Your task to perform on an android device: Empty the shopping cart on walmart. Add "usb-c" to the cart on walmart Image 0: 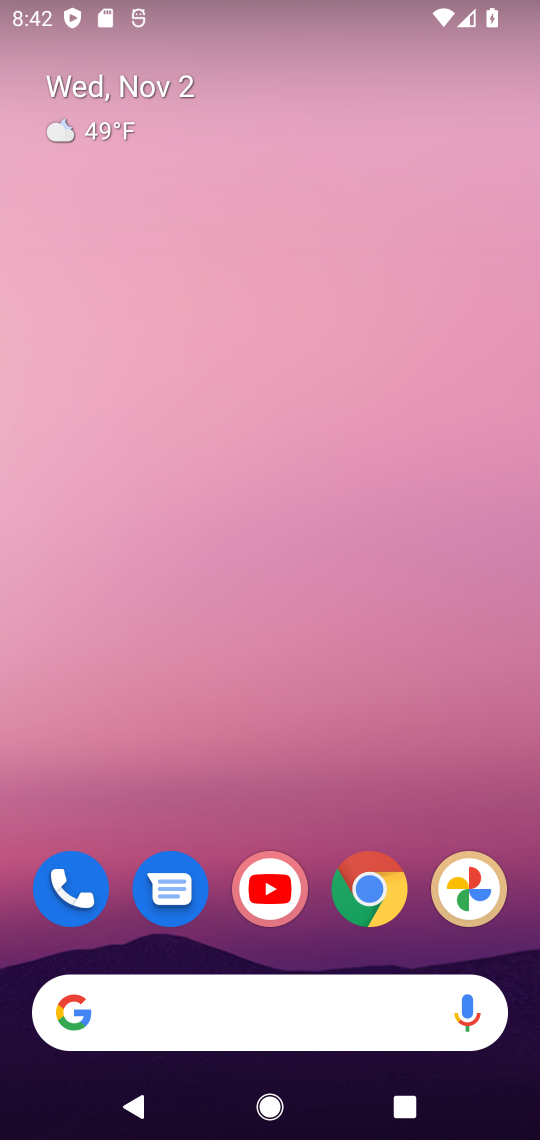
Step 0: press home button
Your task to perform on an android device: Empty the shopping cart on walmart. Add "usb-c" to the cart on walmart Image 1: 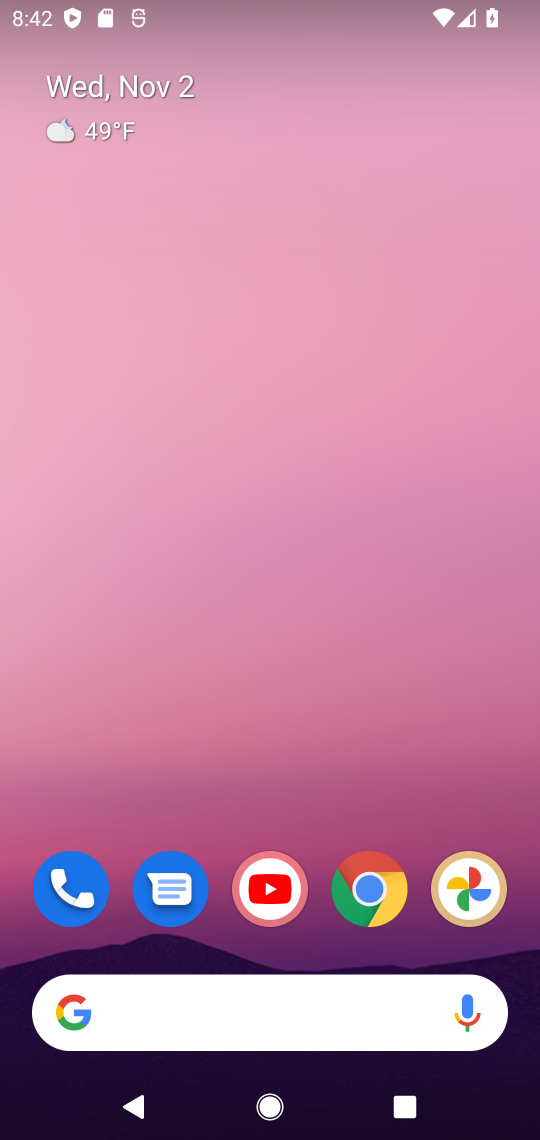
Step 1: drag from (317, 818) to (161, 0)
Your task to perform on an android device: Empty the shopping cart on walmart. Add "usb-c" to the cart on walmart Image 2: 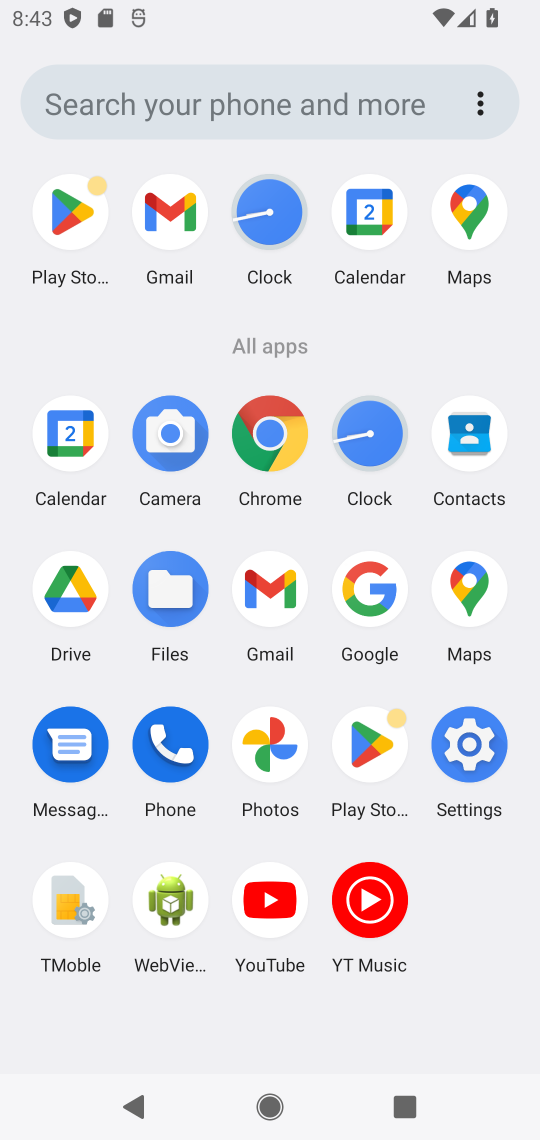
Step 2: click (269, 428)
Your task to perform on an android device: Empty the shopping cart on walmart. Add "usb-c" to the cart on walmart Image 3: 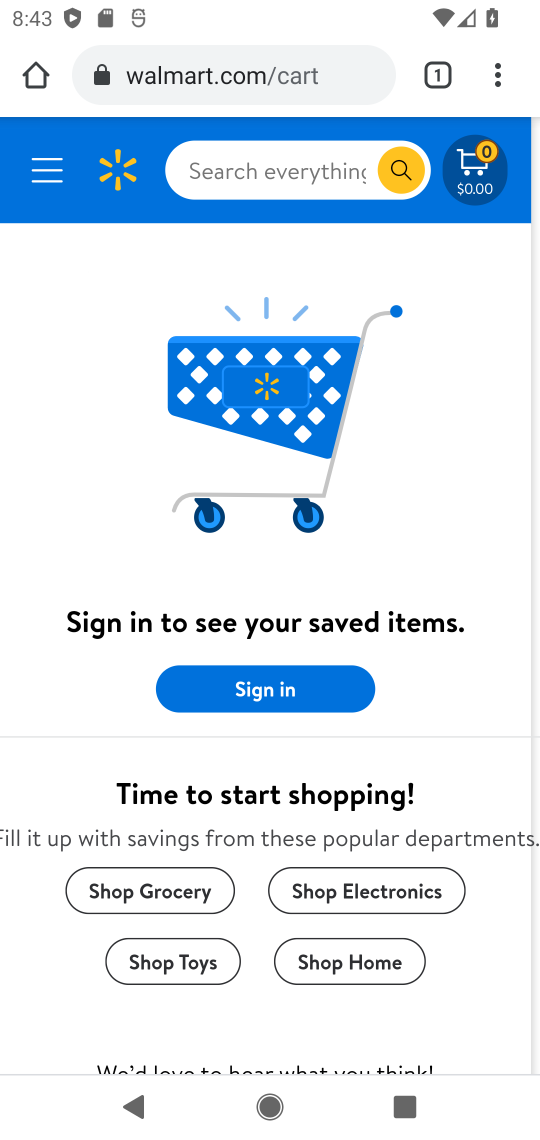
Step 3: click (252, 172)
Your task to perform on an android device: Empty the shopping cart on walmart. Add "usb-c" to the cart on walmart Image 4: 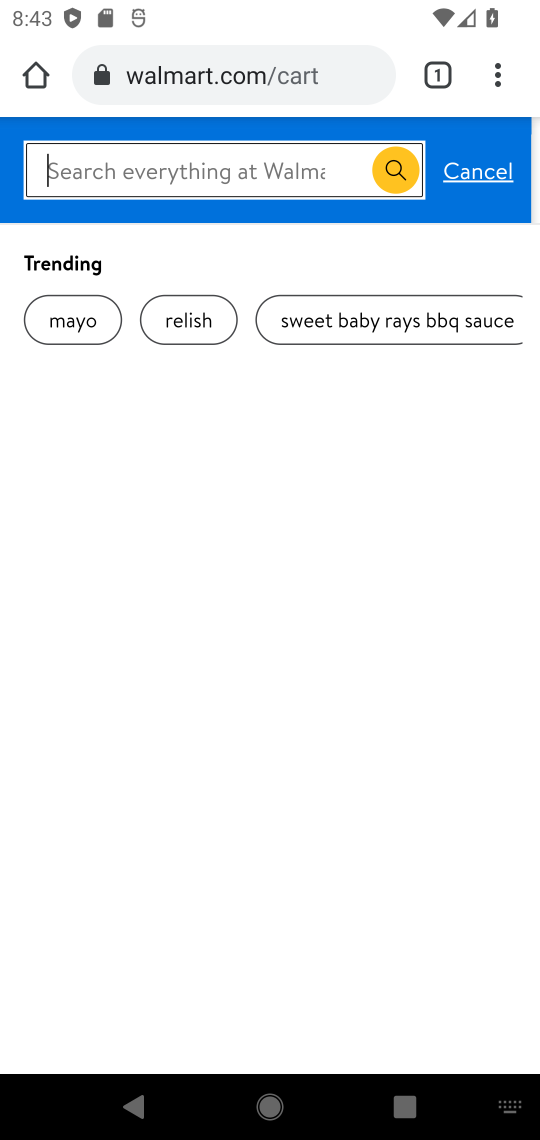
Step 4: type "usb-c"
Your task to perform on an android device: Empty the shopping cart on walmart. Add "usb-c" to the cart on walmart Image 5: 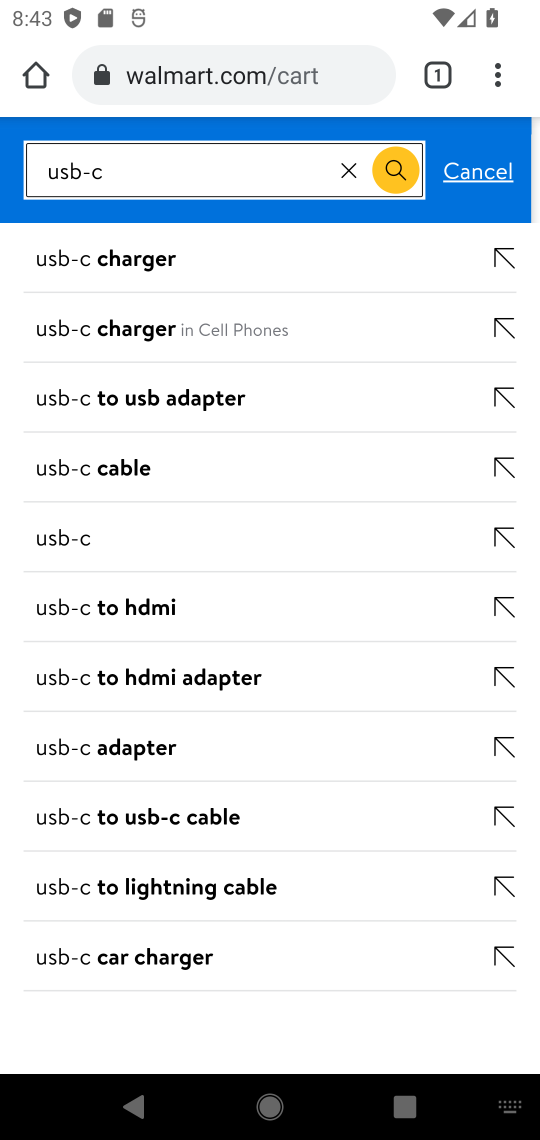
Step 5: click (198, 339)
Your task to perform on an android device: Empty the shopping cart on walmart. Add "usb-c" to the cart on walmart Image 6: 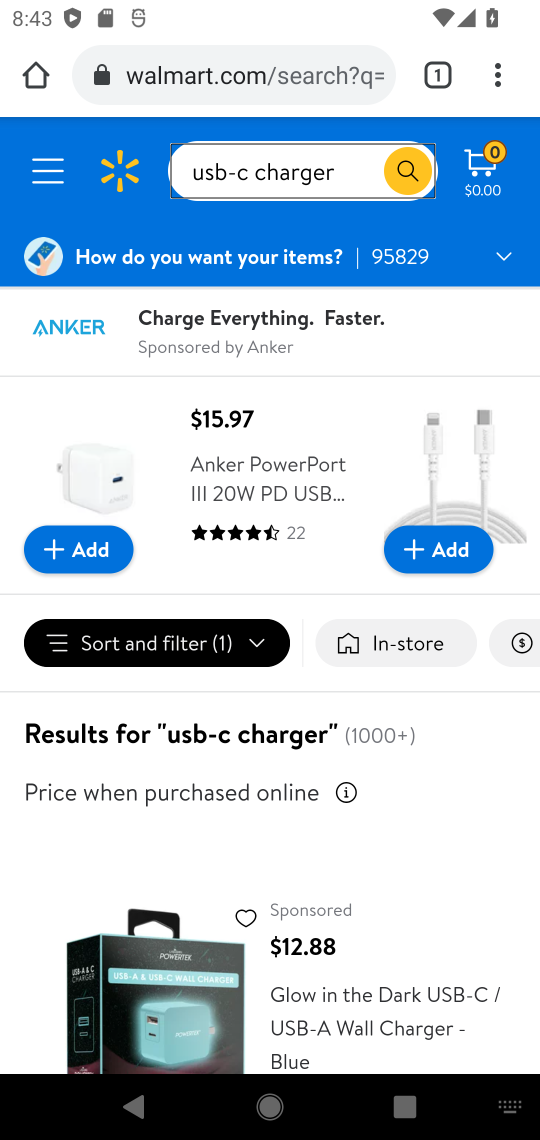
Step 6: drag from (333, 869) to (294, 316)
Your task to perform on an android device: Empty the shopping cart on walmart. Add "usb-c" to the cart on walmart Image 7: 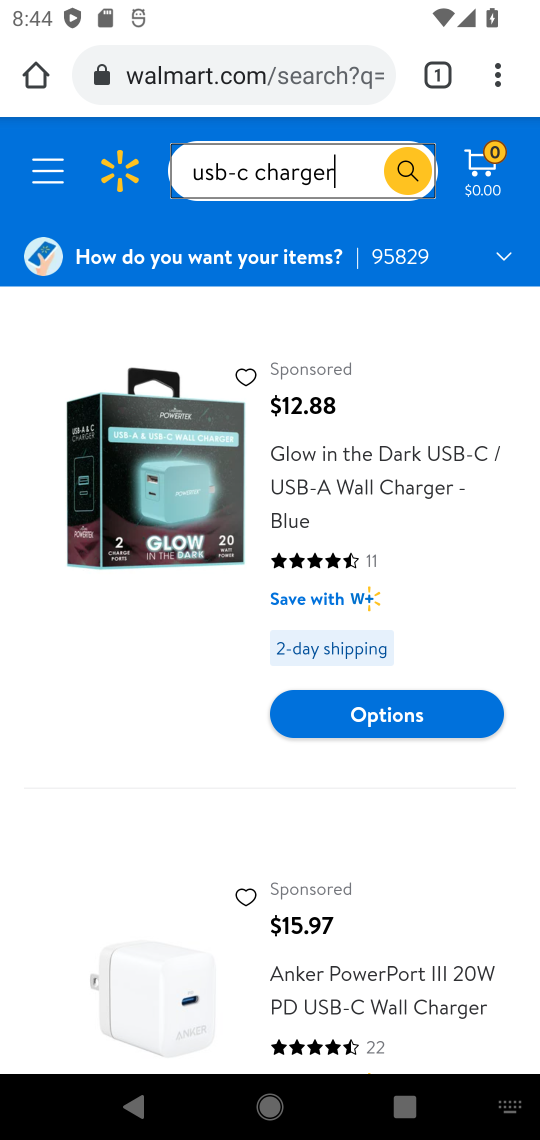
Step 7: click (350, 464)
Your task to perform on an android device: Empty the shopping cart on walmart. Add "usb-c" to the cart on walmart Image 8: 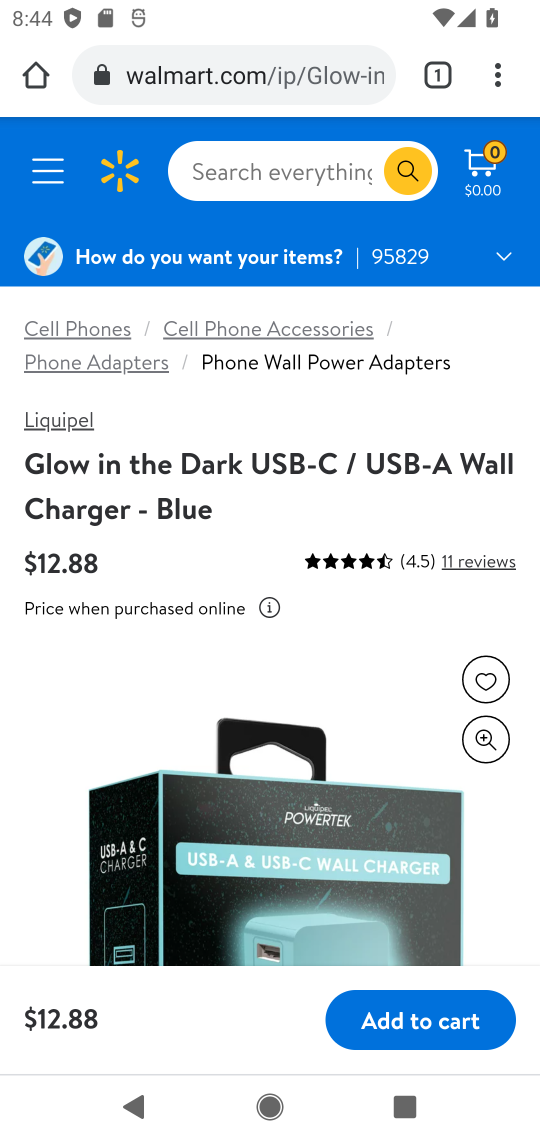
Step 8: drag from (180, 696) to (205, 146)
Your task to perform on an android device: Empty the shopping cart on walmart. Add "usb-c" to the cart on walmart Image 9: 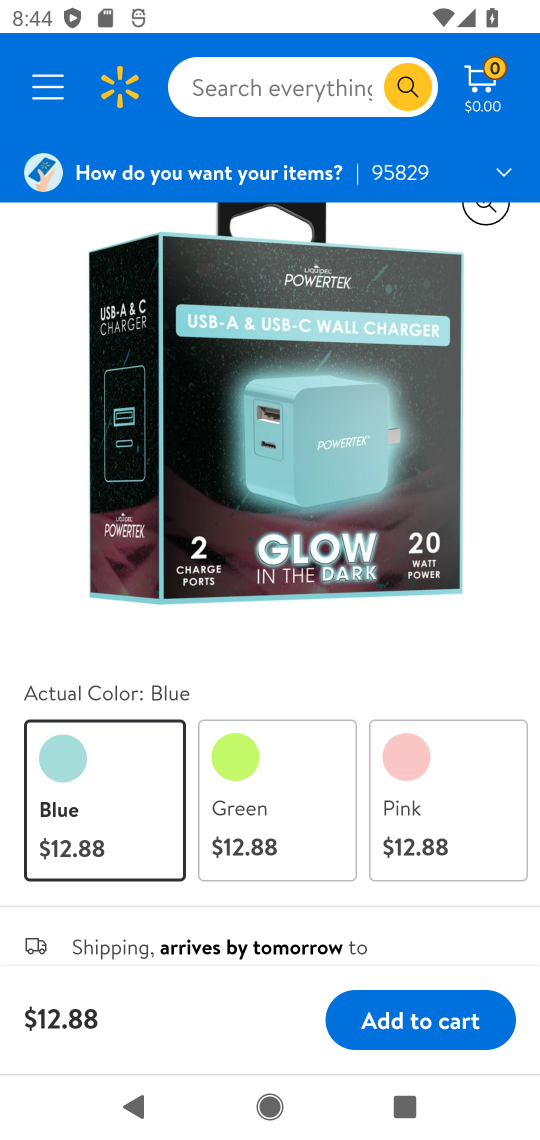
Step 9: drag from (290, 922) to (346, 401)
Your task to perform on an android device: Empty the shopping cart on walmart. Add "usb-c" to the cart on walmart Image 10: 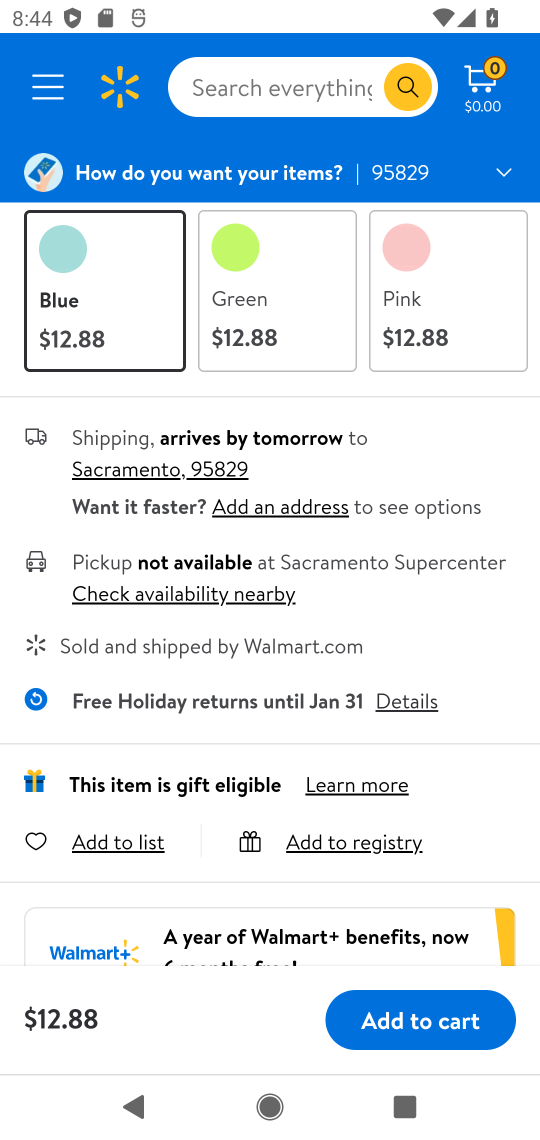
Step 10: click (411, 1021)
Your task to perform on an android device: Empty the shopping cart on walmart. Add "usb-c" to the cart on walmart Image 11: 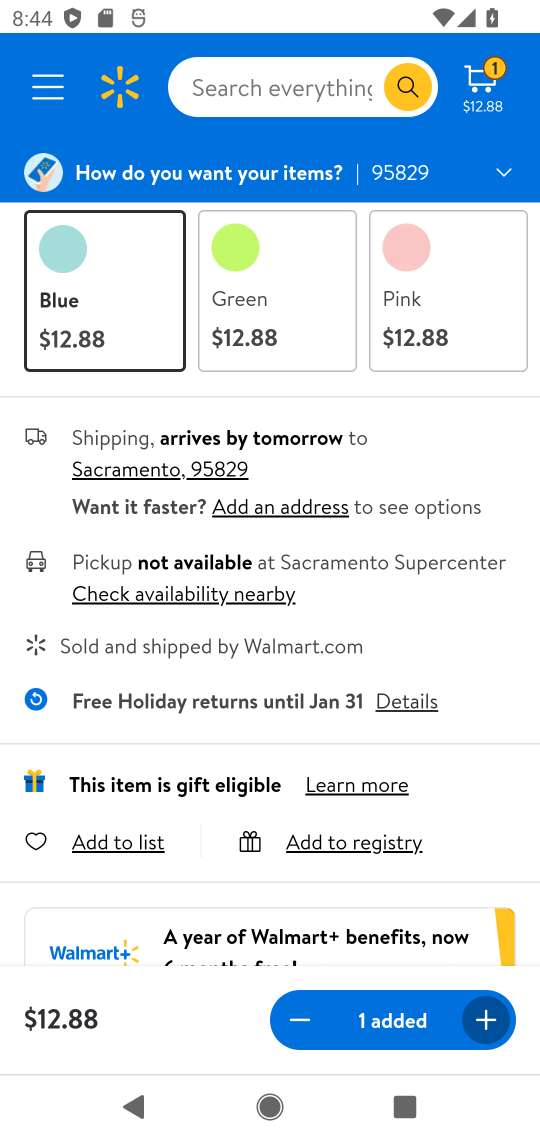
Step 11: click (482, 66)
Your task to perform on an android device: Empty the shopping cart on walmart. Add "usb-c" to the cart on walmart Image 12: 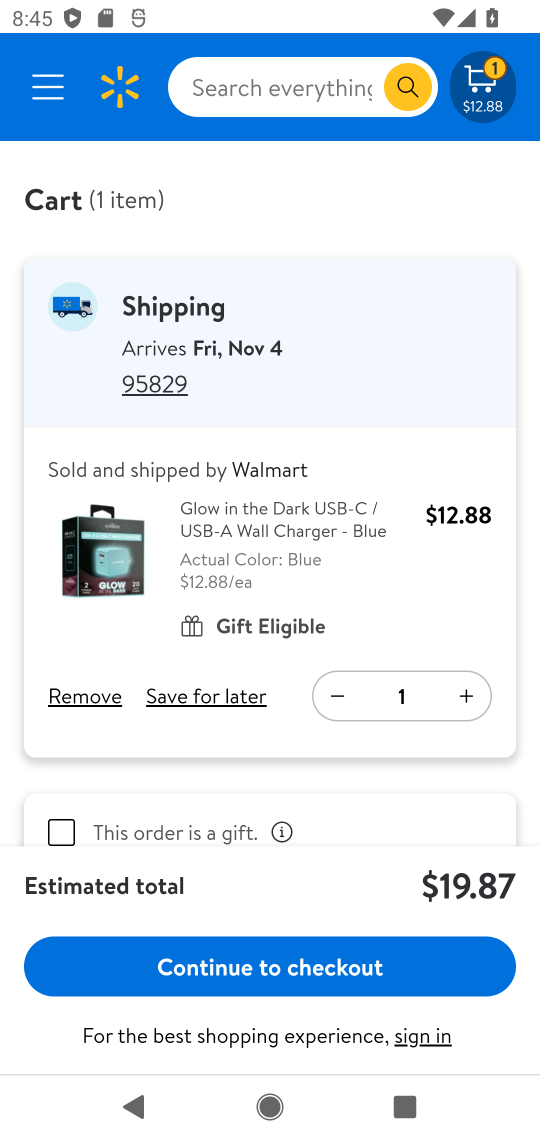
Step 12: task complete